Your task to perform on an android device: turn notification dots on Image 0: 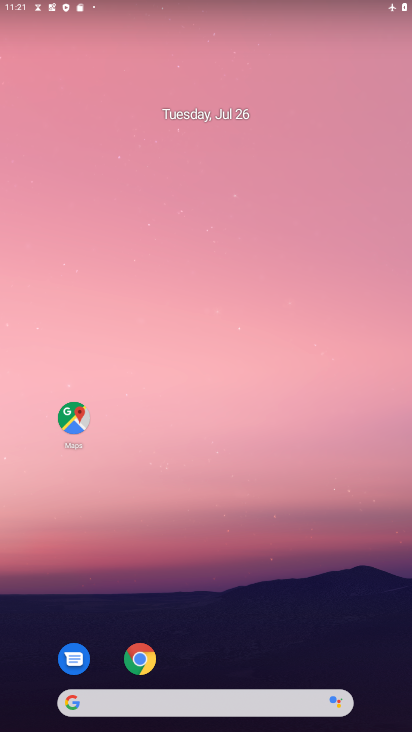
Step 0: drag from (220, 701) to (253, 88)
Your task to perform on an android device: turn notification dots on Image 1: 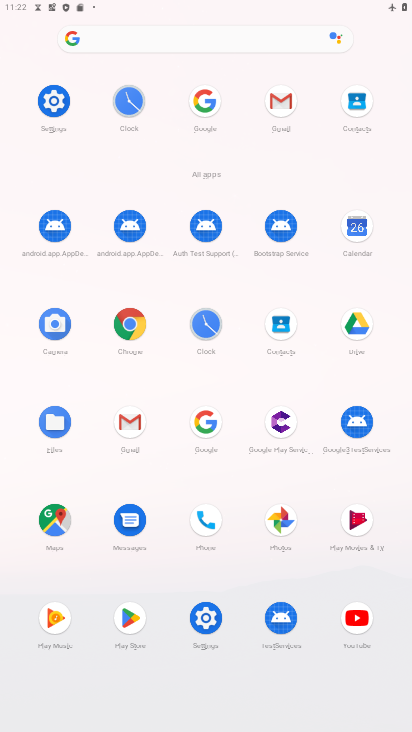
Step 1: click (54, 100)
Your task to perform on an android device: turn notification dots on Image 2: 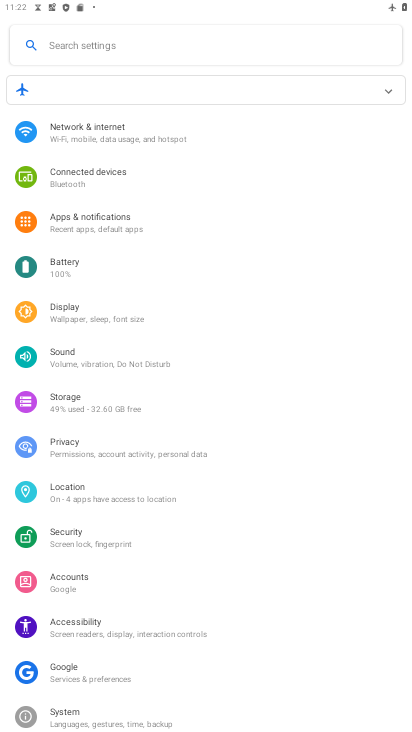
Step 2: click (91, 222)
Your task to perform on an android device: turn notification dots on Image 3: 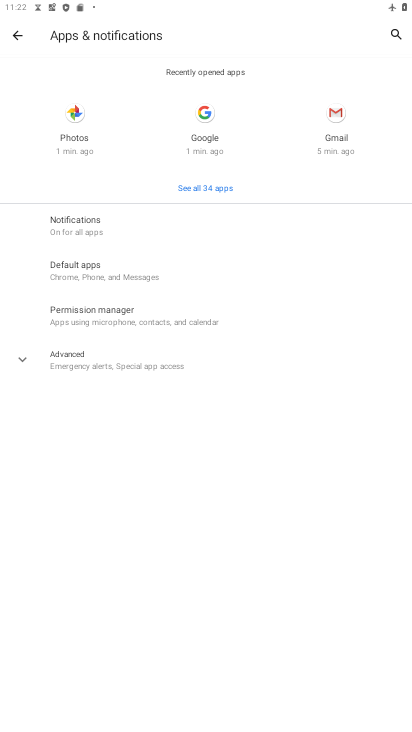
Step 3: click (87, 229)
Your task to perform on an android device: turn notification dots on Image 4: 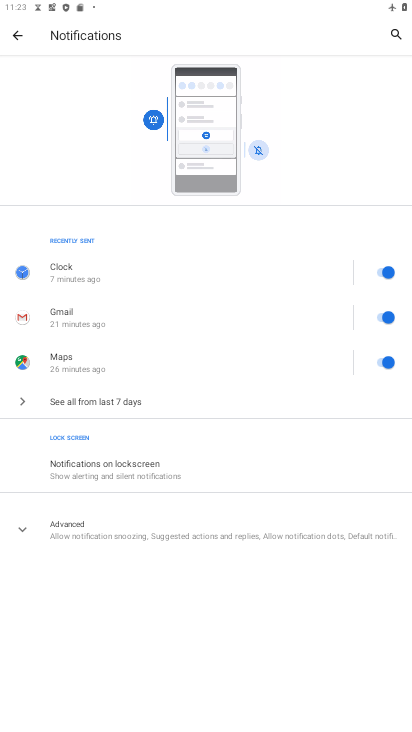
Step 4: click (136, 532)
Your task to perform on an android device: turn notification dots on Image 5: 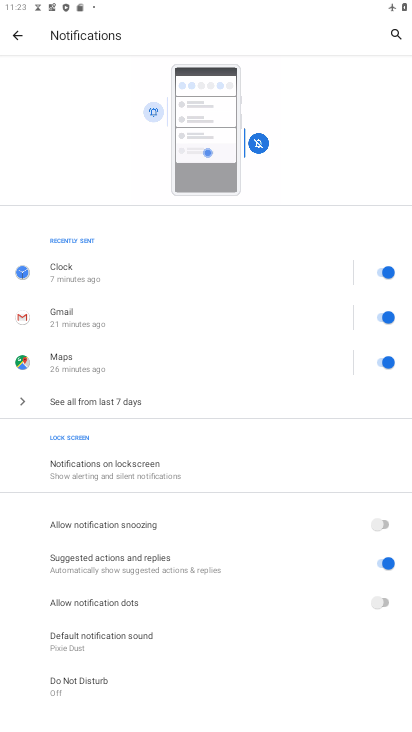
Step 5: click (378, 601)
Your task to perform on an android device: turn notification dots on Image 6: 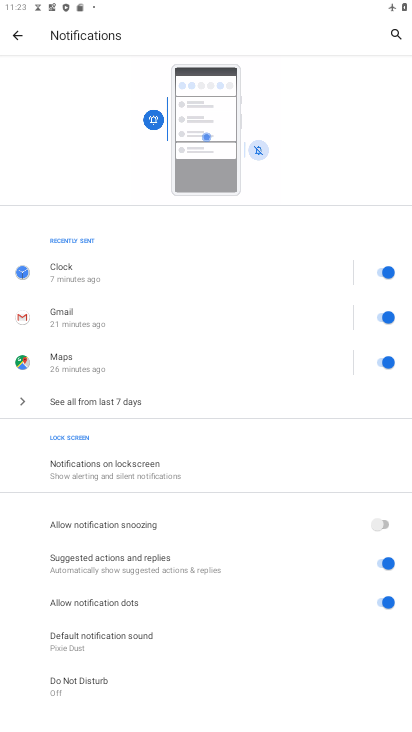
Step 6: task complete